Your task to perform on an android device: empty trash in google photos Image 0: 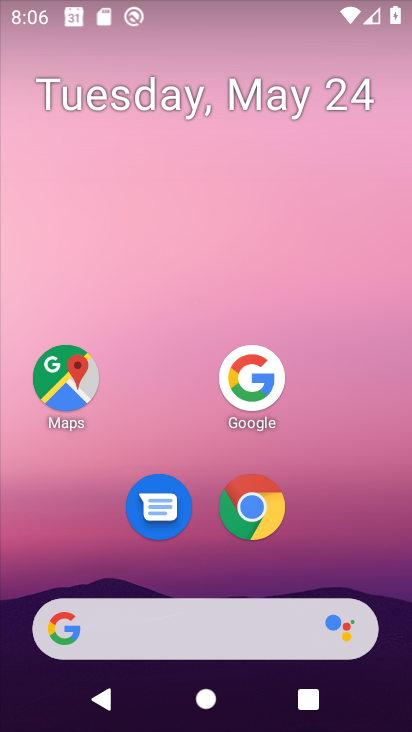
Step 0: press home button
Your task to perform on an android device: empty trash in google photos Image 1: 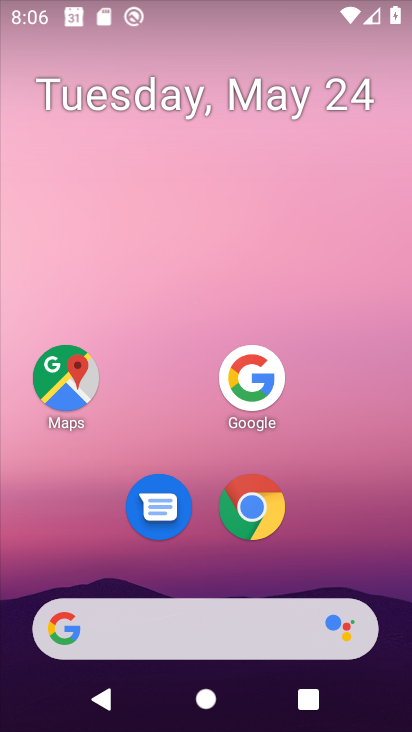
Step 1: drag from (179, 623) to (345, 87)
Your task to perform on an android device: empty trash in google photos Image 2: 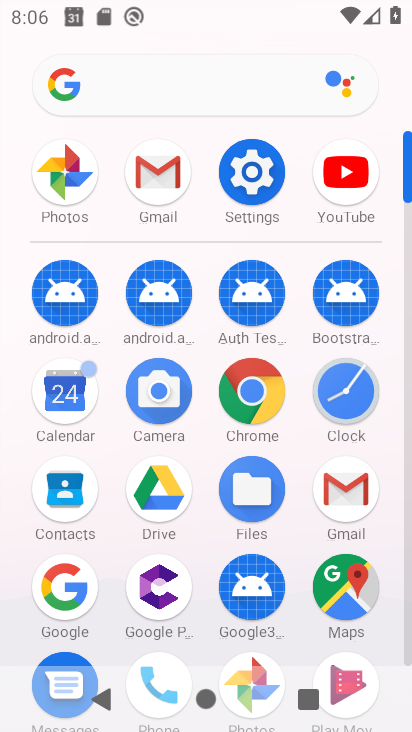
Step 2: click (61, 189)
Your task to perform on an android device: empty trash in google photos Image 3: 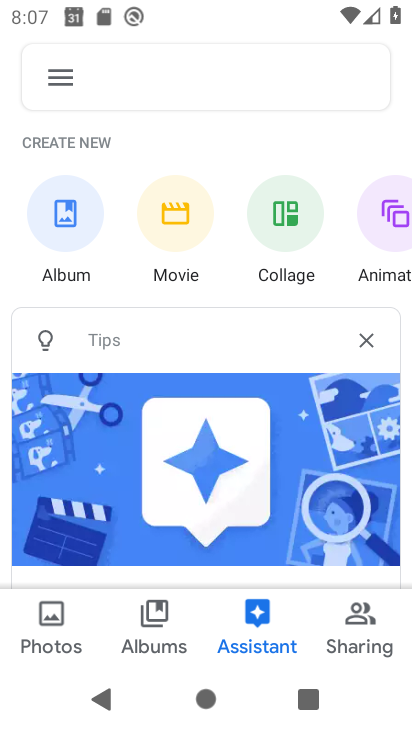
Step 3: click (57, 74)
Your task to perform on an android device: empty trash in google photos Image 4: 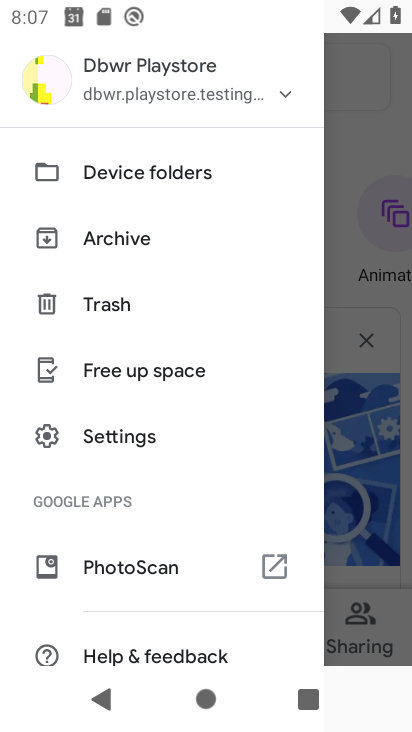
Step 4: click (117, 305)
Your task to perform on an android device: empty trash in google photos Image 5: 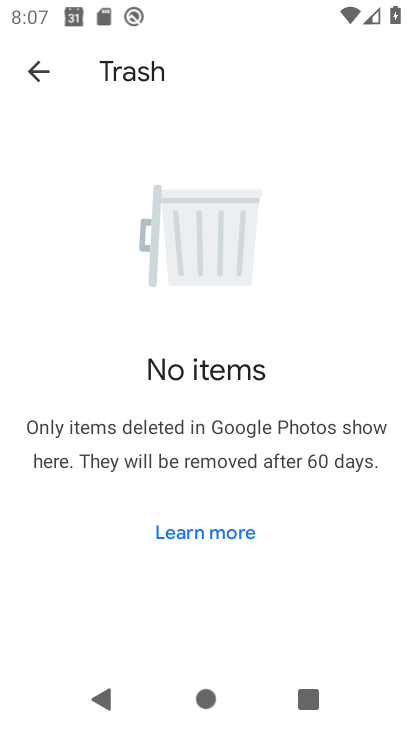
Step 5: task complete